Your task to perform on an android device: open app "Move to iOS" Image 0: 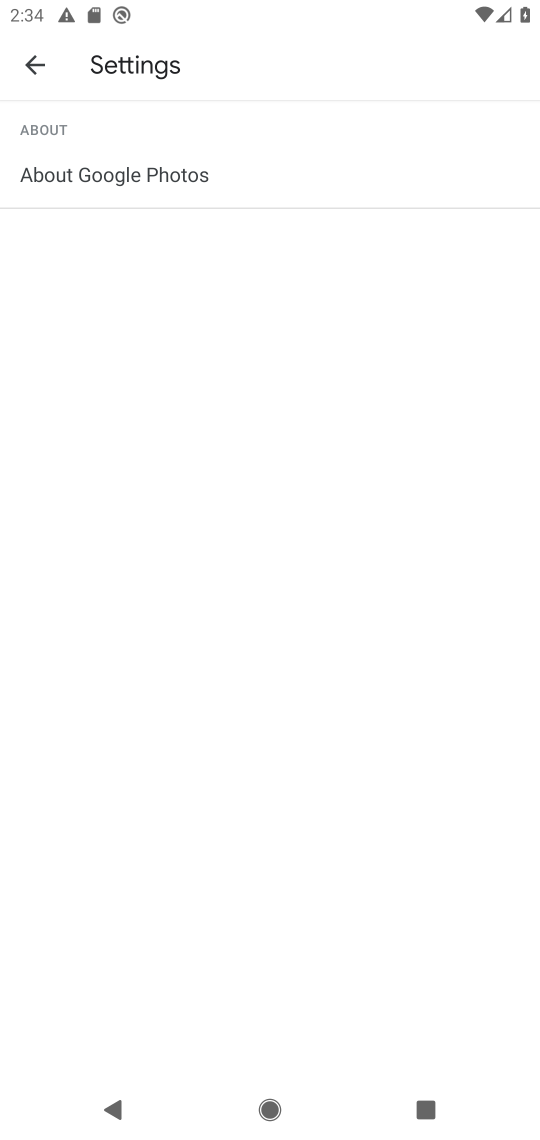
Step 0: press home button
Your task to perform on an android device: open app "Move to iOS" Image 1: 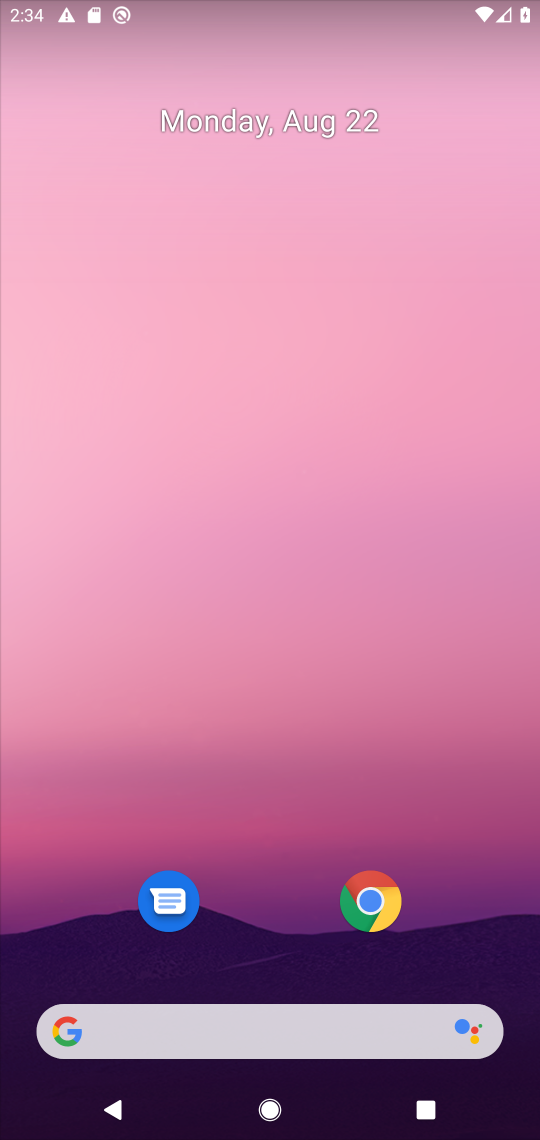
Step 1: drag from (496, 989) to (408, 206)
Your task to perform on an android device: open app "Move to iOS" Image 2: 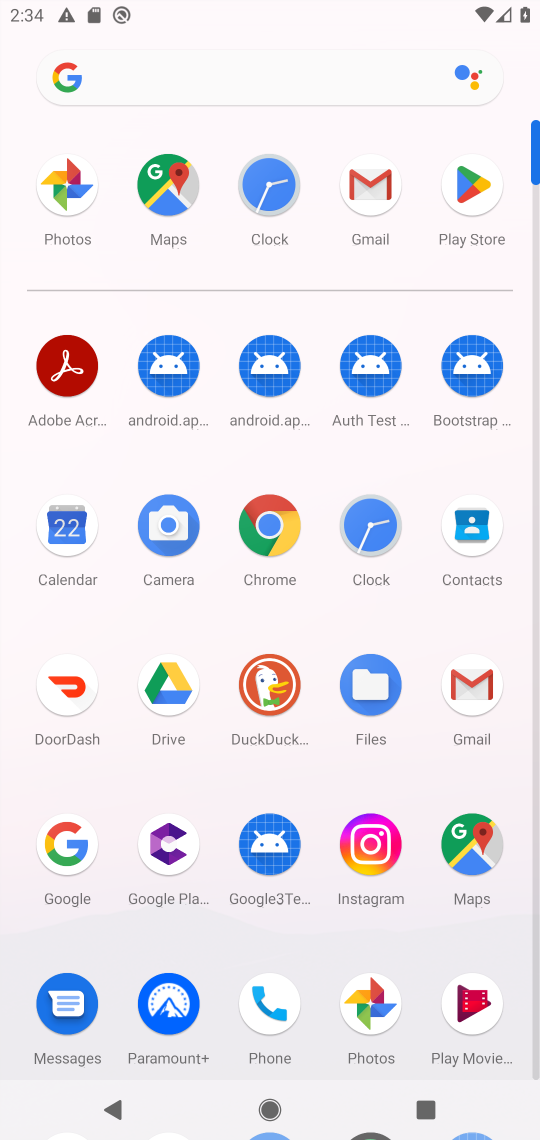
Step 2: drag from (205, 942) to (165, 368)
Your task to perform on an android device: open app "Move to iOS" Image 3: 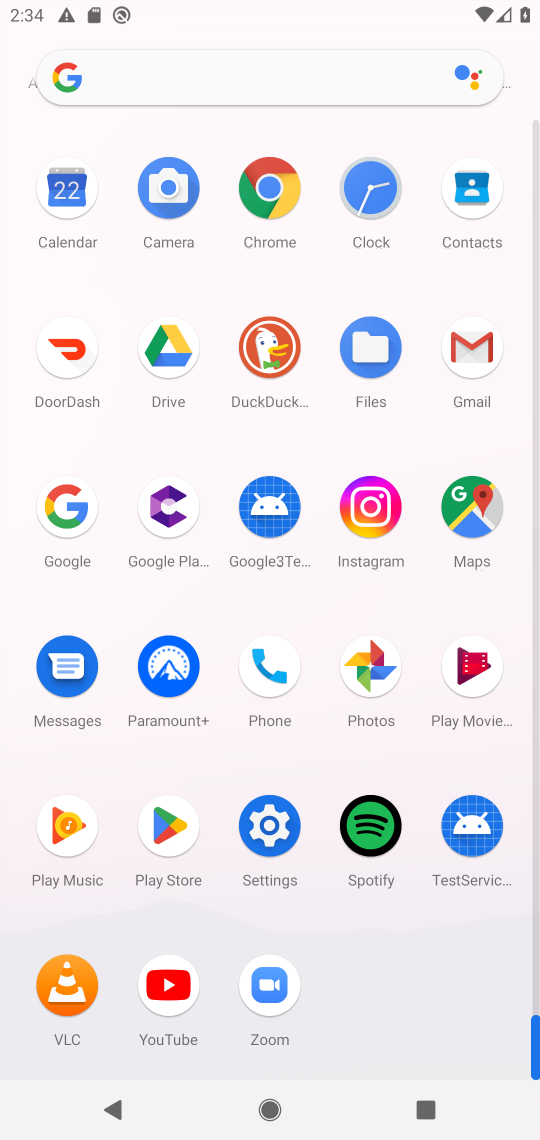
Step 3: click (173, 828)
Your task to perform on an android device: open app "Move to iOS" Image 4: 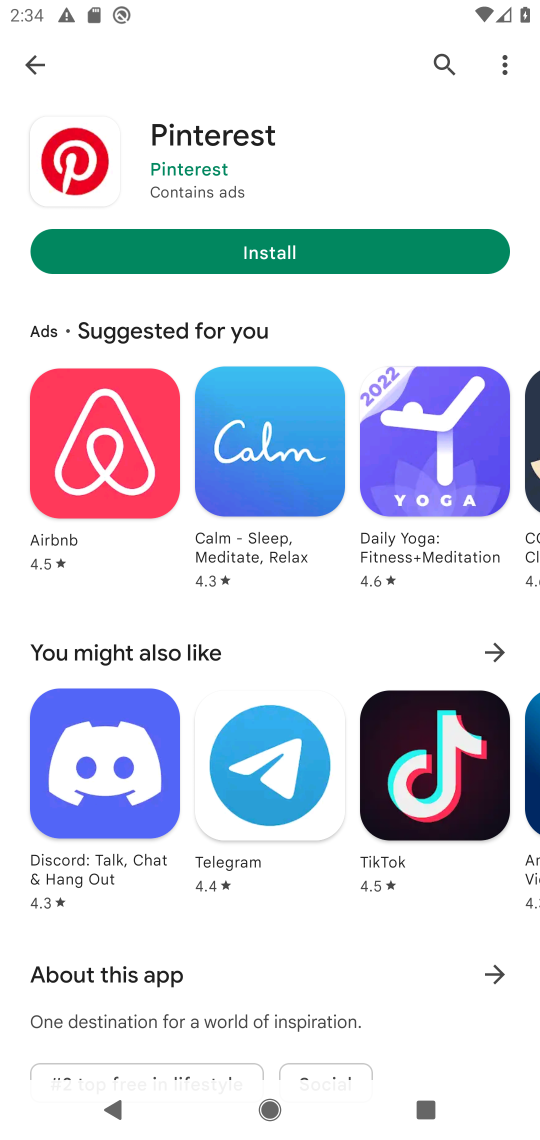
Step 4: click (433, 65)
Your task to perform on an android device: open app "Move to iOS" Image 5: 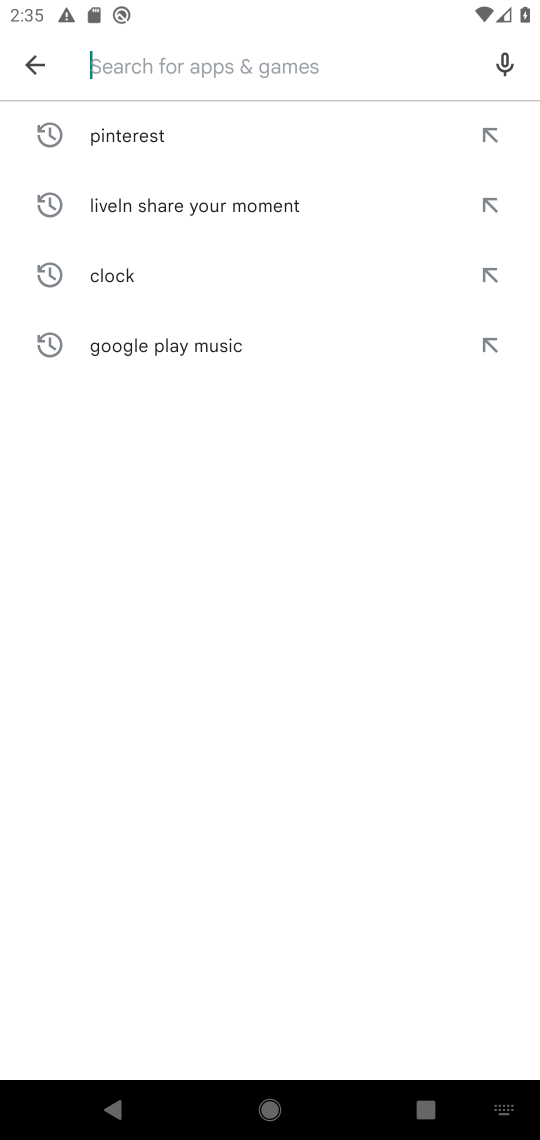
Step 5: type "Move to iOS"
Your task to perform on an android device: open app "Move to iOS" Image 6: 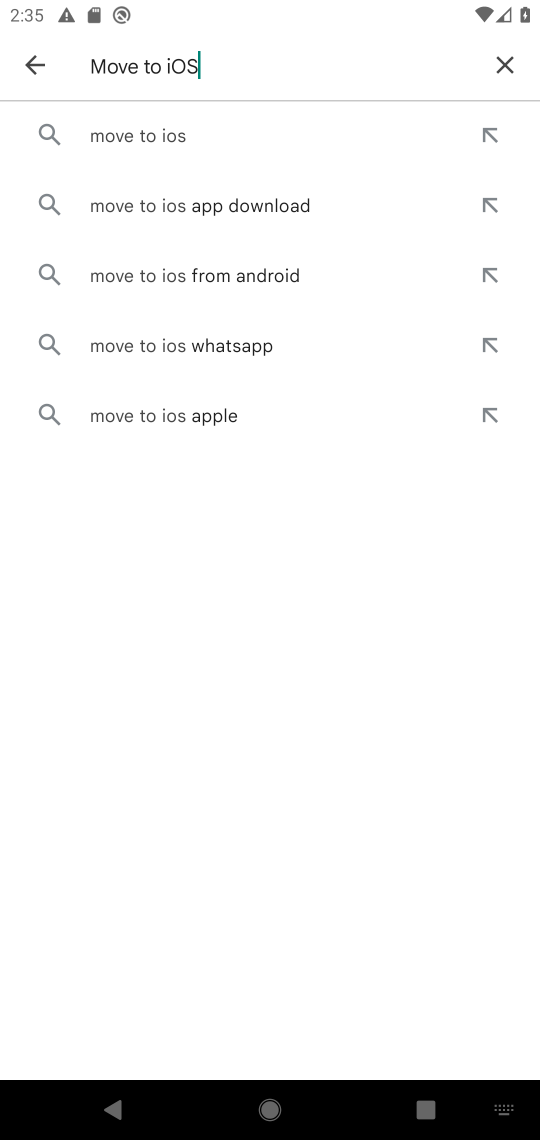
Step 6: click (131, 141)
Your task to perform on an android device: open app "Move to iOS" Image 7: 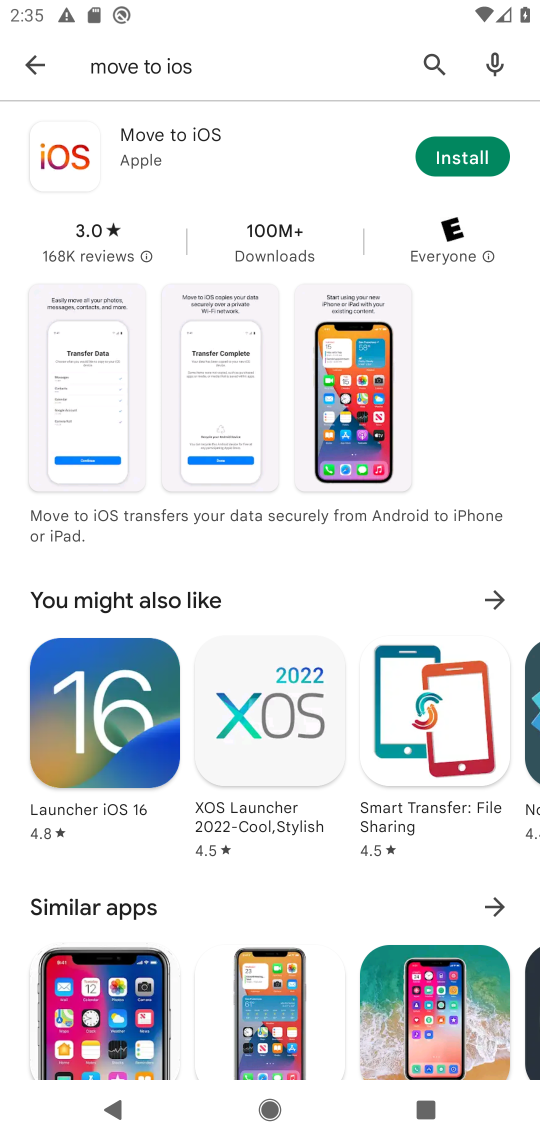
Step 7: click (129, 140)
Your task to perform on an android device: open app "Move to iOS" Image 8: 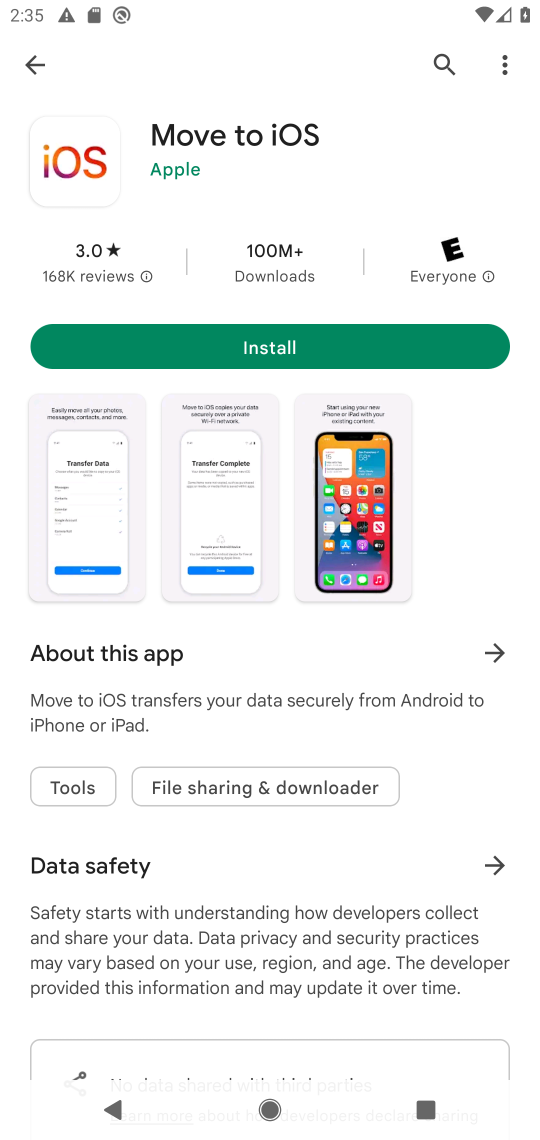
Step 8: task complete